Your task to perform on an android device: turn on location history Image 0: 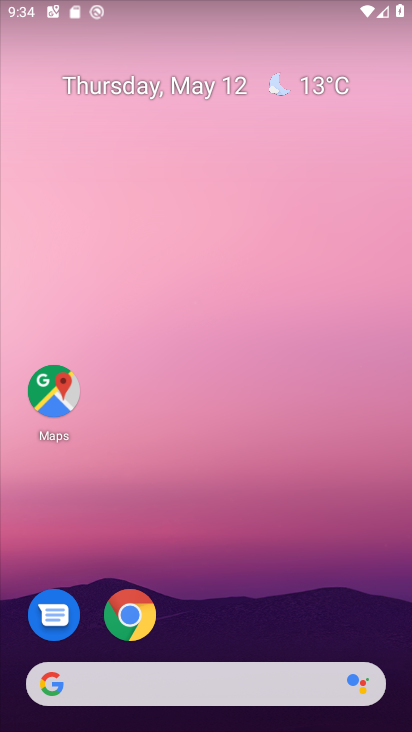
Step 0: click (51, 388)
Your task to perform on an android device: turn on location history Image 1: 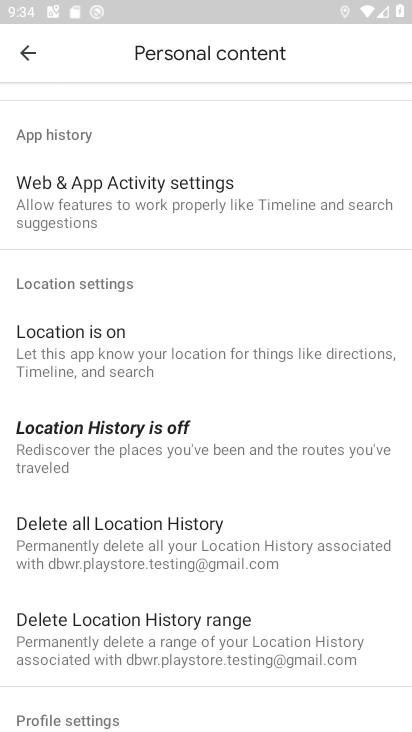
Step 1: click (128, 434)
Your task to perform on an android device: turn on location history Image 2: 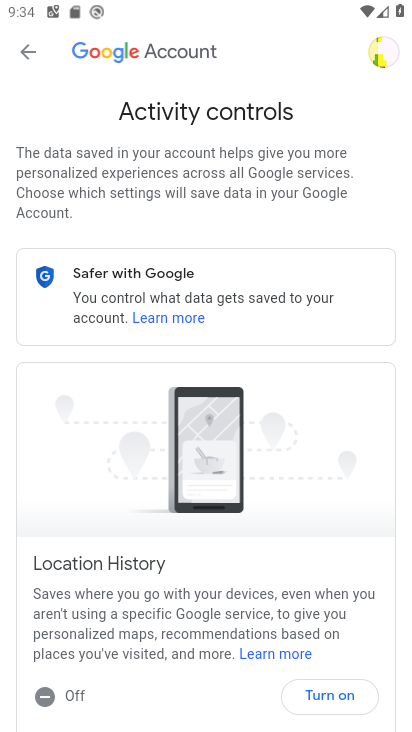
Step 2: click (326, 694)
Your task to perform on an android device: turn on location history Image 3: 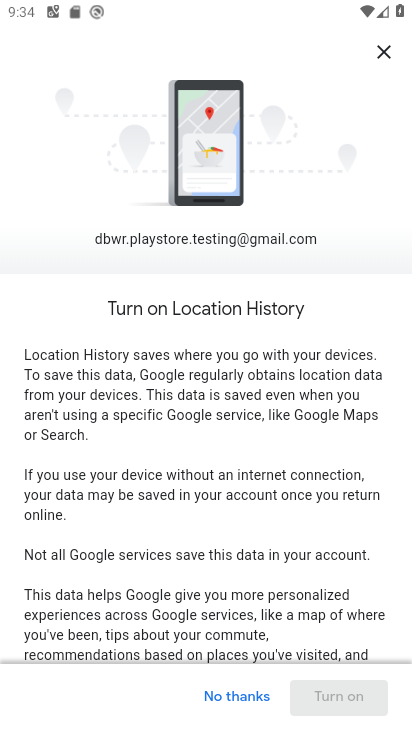
Step 3: drag from (299, 545) to (239, 218)
Your task to perform on an android device: turn on location history Image 4: 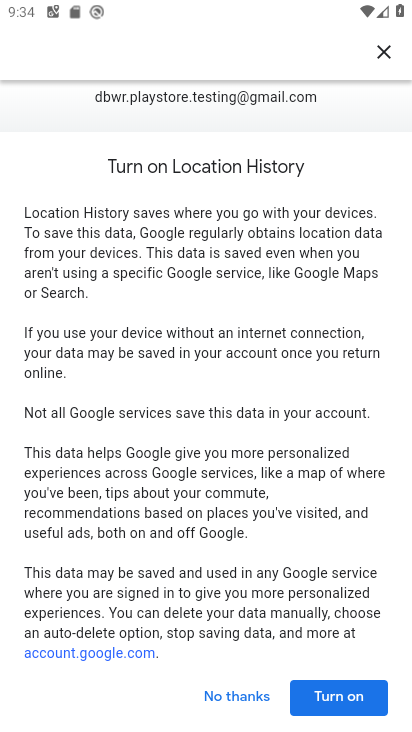
Step 4: click (342, 701)
Your task to perform on an android device: turn on location history Image 5: 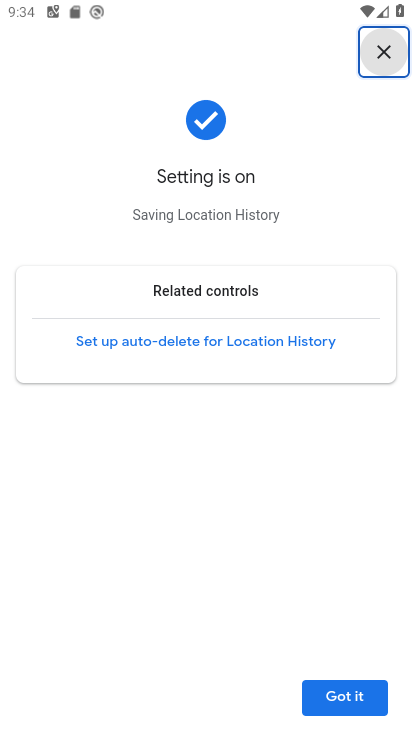
Step 5: click (342, 698)
Your task to perform on an android device: turn on location history Image 6: 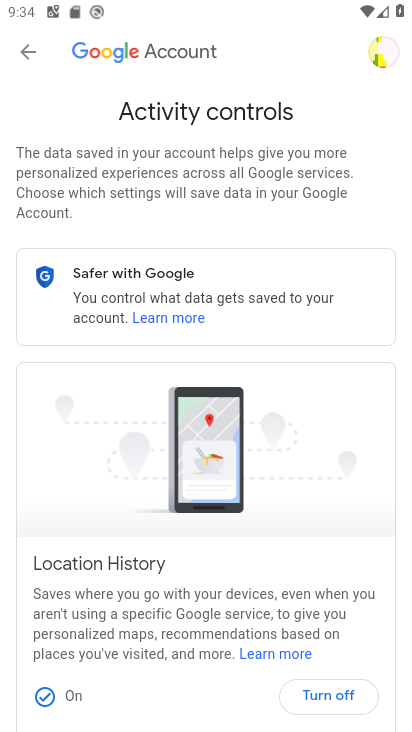
Step 6: task complete